Your task to perform on an android device: Toggle the flashlight Image 0: 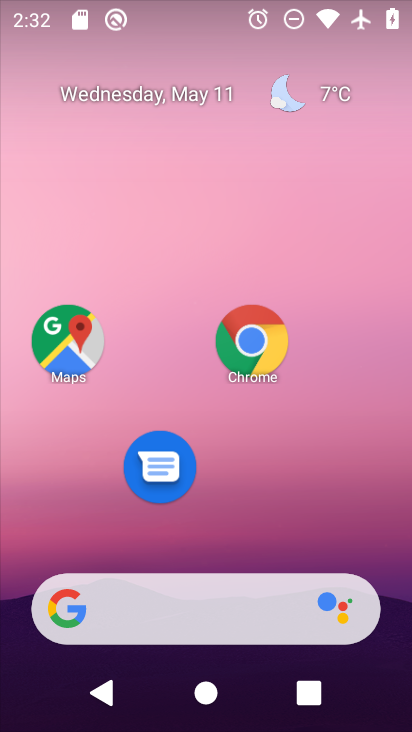
Step 0: press home button
Your task to perform on an android device: Toggle the flashlight Image 1: 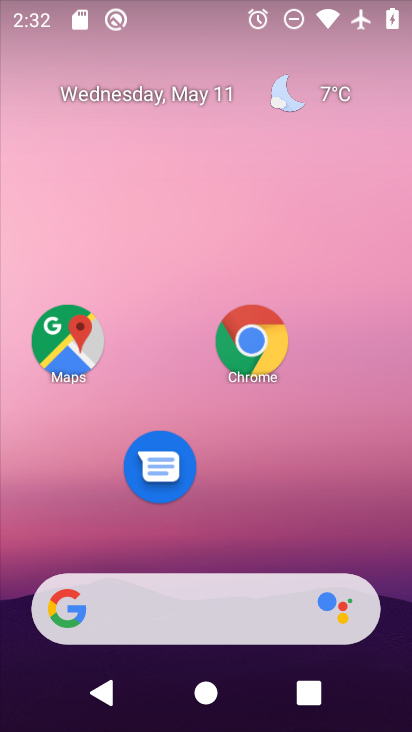
Step 1: task complete